Your task to perform on an android device: turn off wifi Image 0: 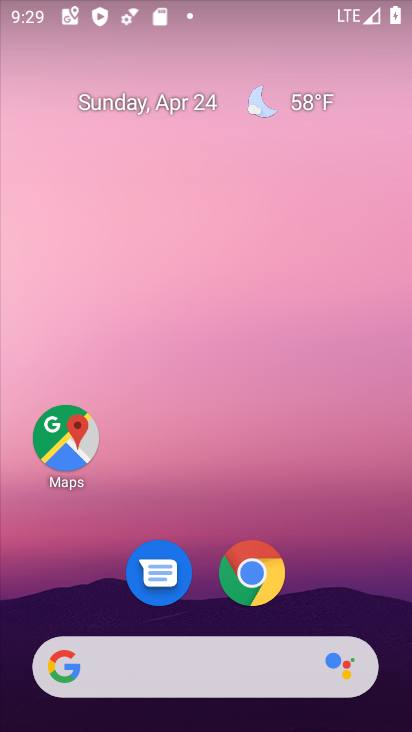
Step 0: drag from (293, 568) to (244, 203)
Your task to perform on an android device: turn off wifi Image 1: 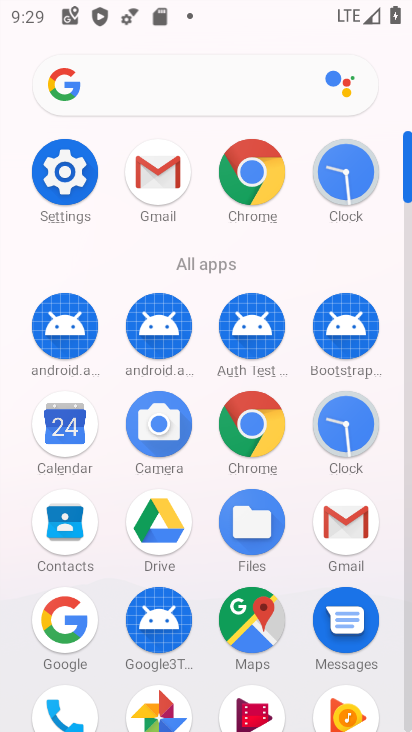
Step 1: click (77, 174)
Your task to perform on an android device: turn off wifi Image 2: 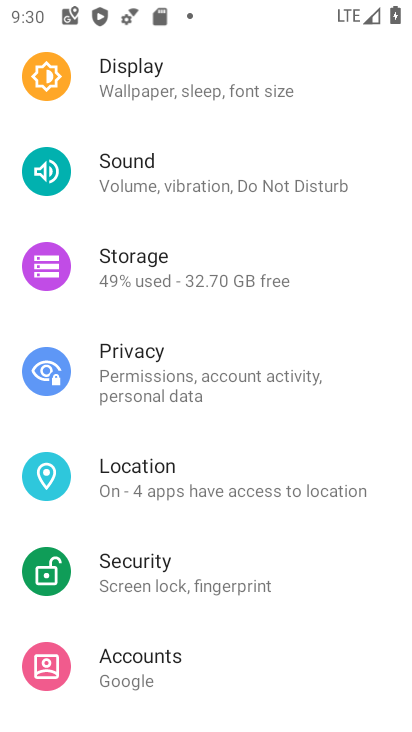
Step 2: drag from (320, 140) to (271, 486)
Your task to perform on an android device: turn off wifi Image 3: 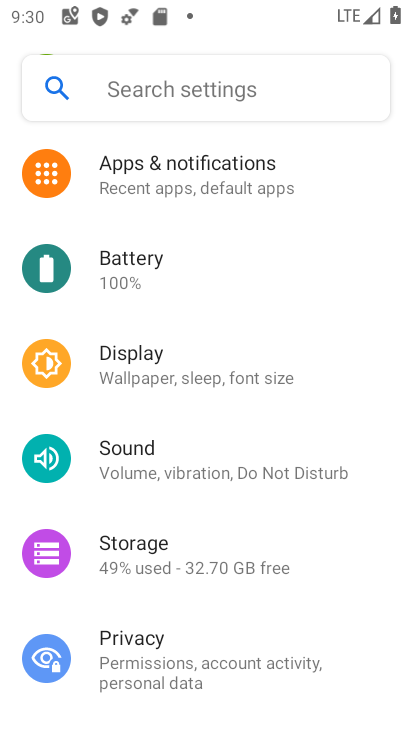
Step 3: drag from (330, 177) to (324, 486)
Your task to perform on an android device: turn off wifi Image 4: 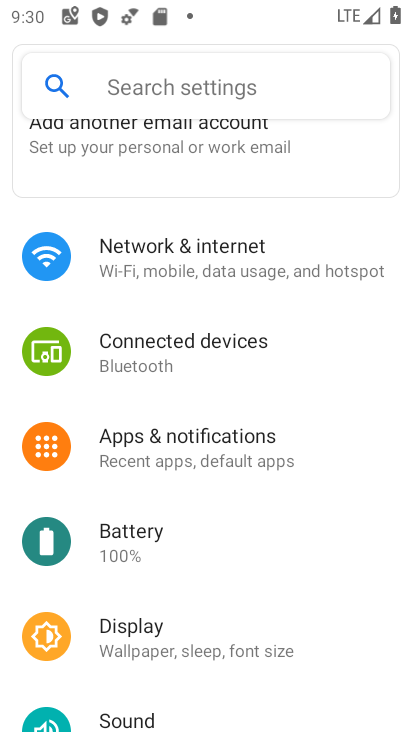
Step 4: click (192, 253)
Your task to perform on an android device: turn off wifi Image 5: 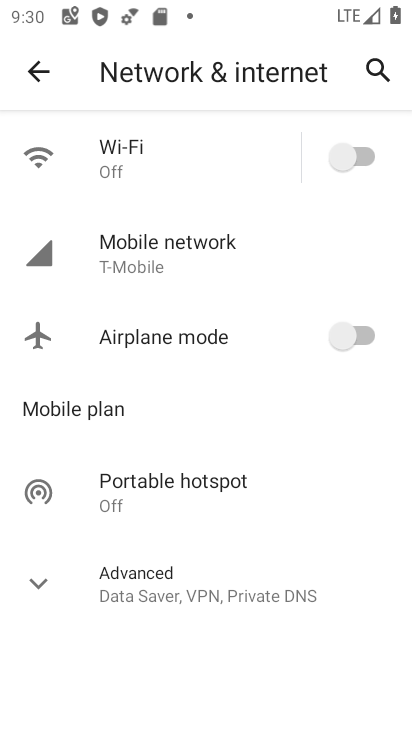
Step 5: task complete